Your task to perform on an android device: check data usage Image 0: 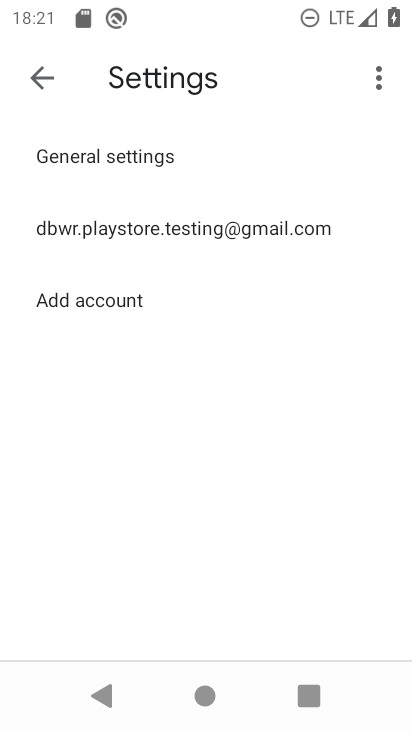
Step 0: press home button
Your task to perform on an android device: check data usage Image 1: 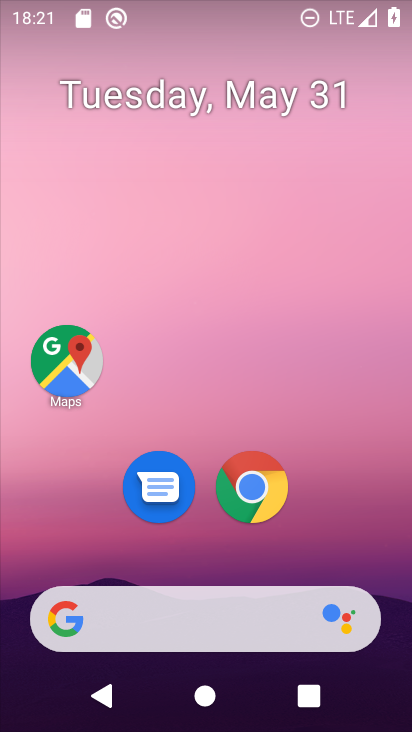
Step 1: drag from (324, 539) to (225, 26)
Your task to perform on an android device: check data usage Image 2: 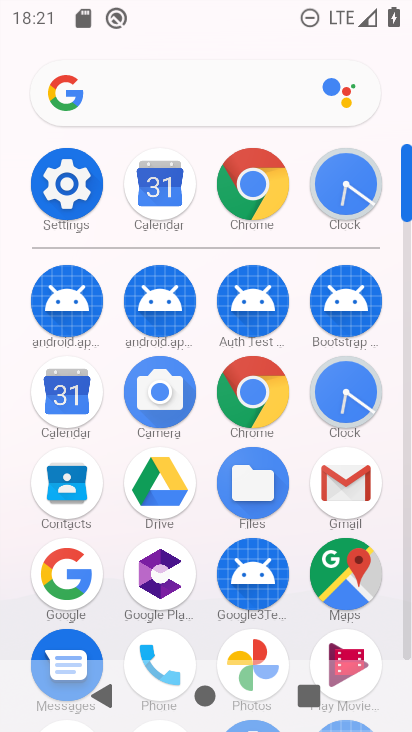
Step 2: click (62, 197)
Your task to perform on an android device: check data usage Image 3: 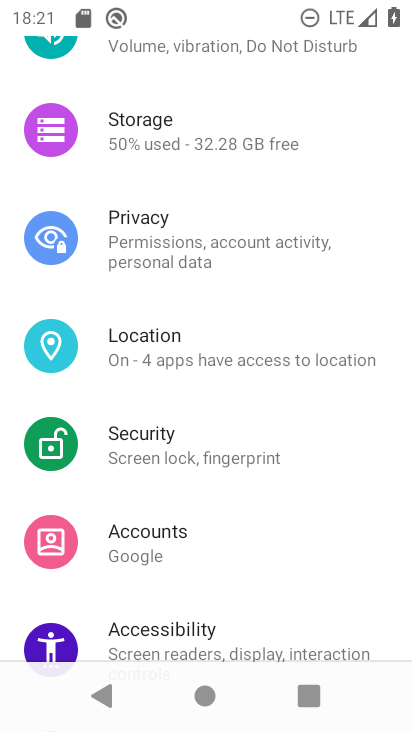
Step 3: drag from (221, 183) to (285, 609)
Your task to perform on an android device: check data usage Image 4: 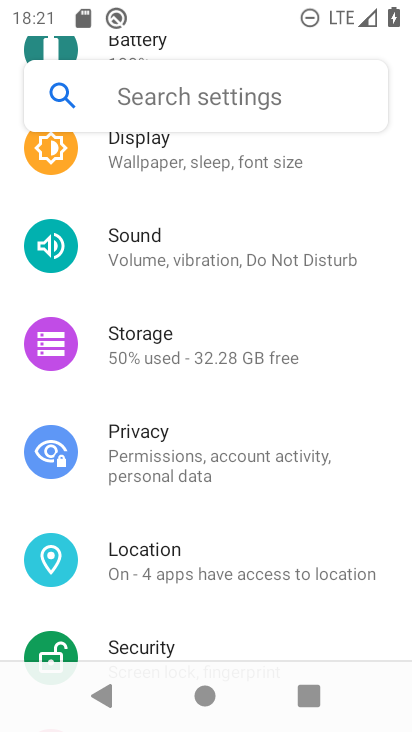
Step 4: drag from (202, 203) to (342, 707)
Your task to perform on an android device: check data usage Image 5: 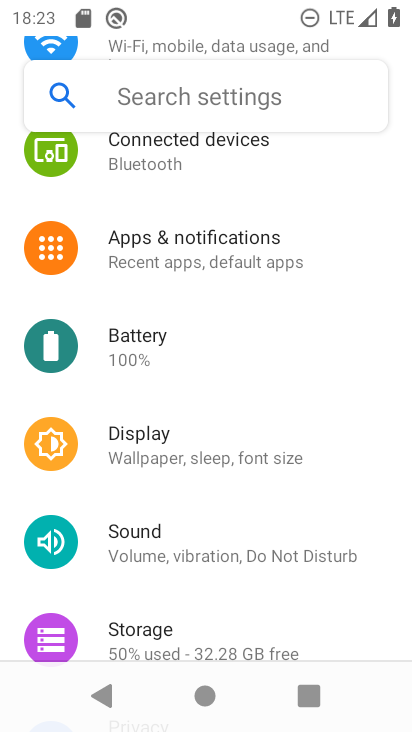
Step 5: drag from (198, 289) to (235, 573)
Your task to perform on an android device: check data usage Image 6: 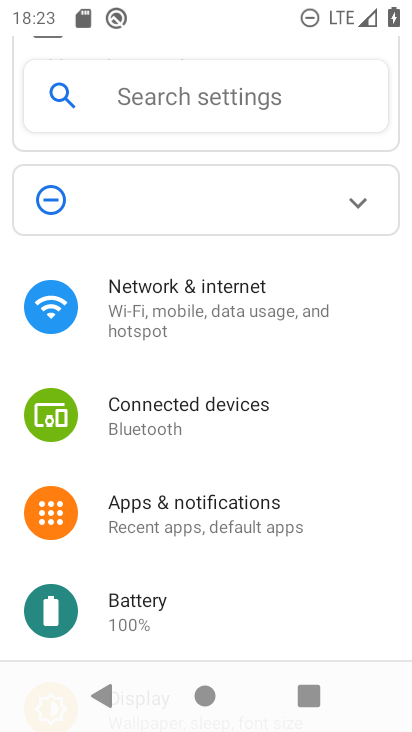
Step 6: click (175, 301)
Your task to perform on an android device: check data usage Image 7: 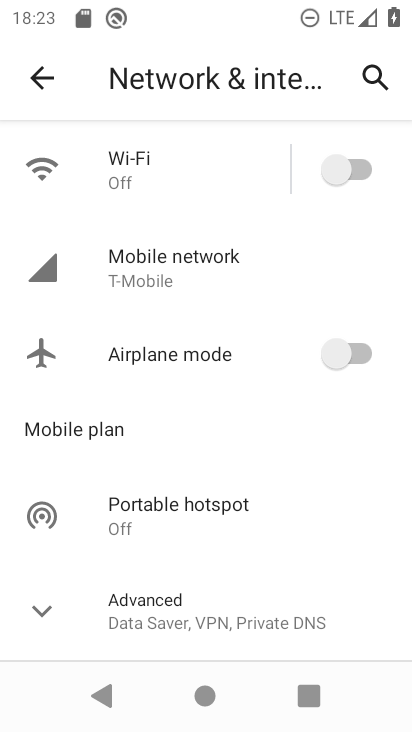
Step 7: click (146, 253)
Your task to perform on an android device: check data usage Image 8: 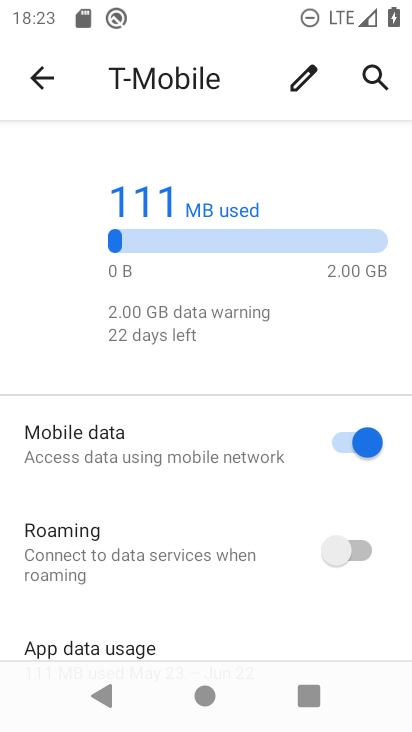
Step 8: task complete